Your task to perform on an android device: turn off wifi Image 0: 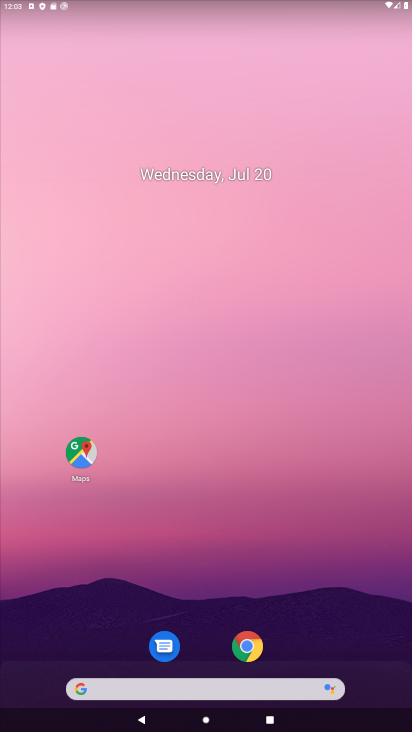
Step 0: drag from (167, 12) to (193, 658)
Your task to perform on an android device: turn off wifi Image 1: 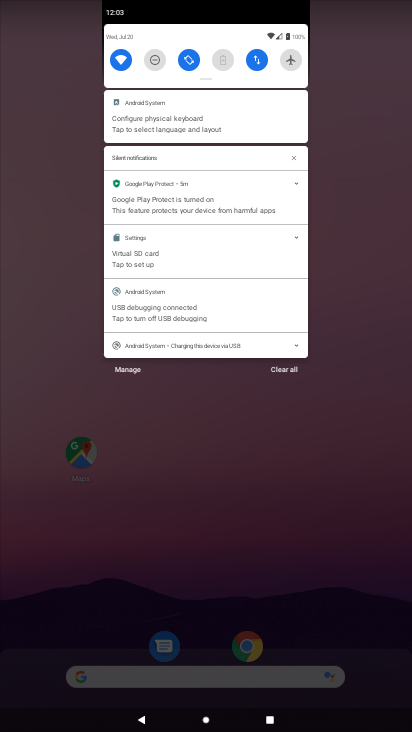
Step 1: click (115, 57)
Your task to perform on an android device: turn off wifi Image 2: 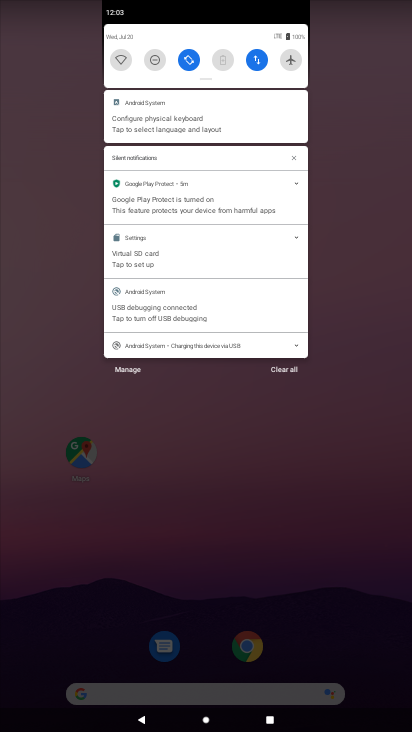
Step 2: task complete